Your task to perform on an android device: make emails show in primary in the gmail app Image 0: 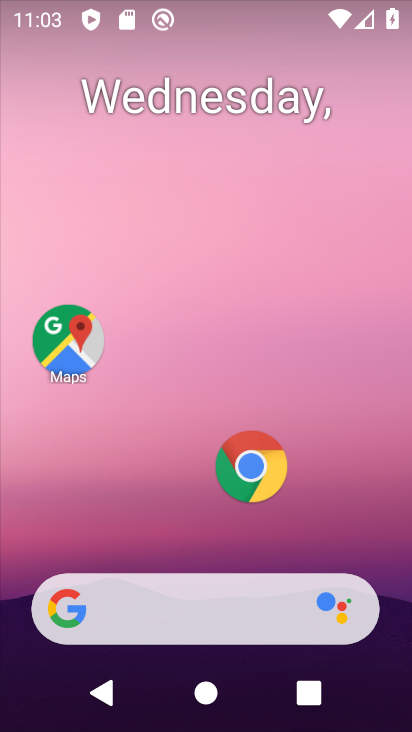
Step 0: drag from (196, 177) to (199, 364)
Your task to perform on an android device: make emails show in primary in the gmail app Image 1: 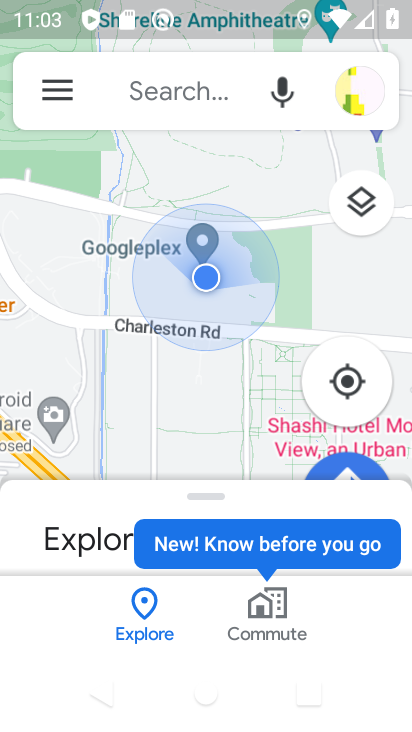
Step 1: press home button
Your task to perform on an android device: make emails show in primary in the gmail app Image 2: 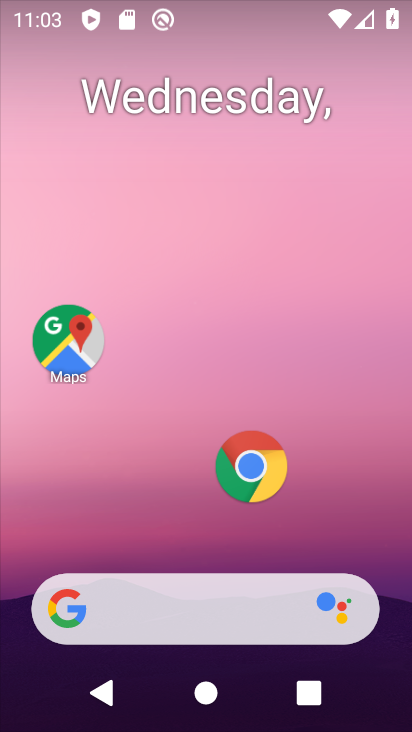
Step 2: drag from (294, 636) to (162, 107)
Your task to perform on an android device: make emails show in primary in the gmail app Image 3: 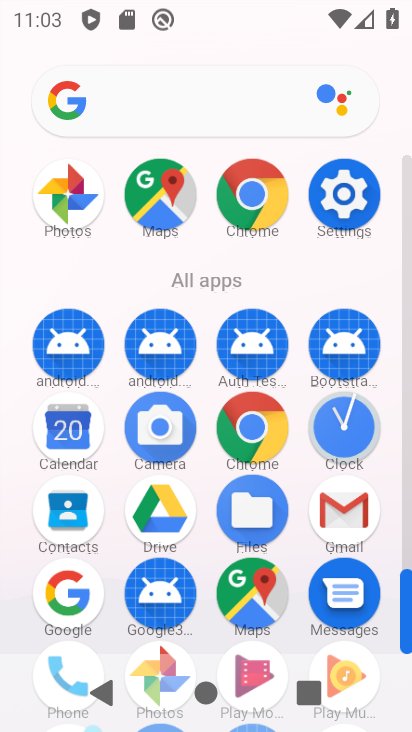
Step 3: click (339, 508)
Your task to perform on an android device: make emails show in primary in the gmail app Image 4: 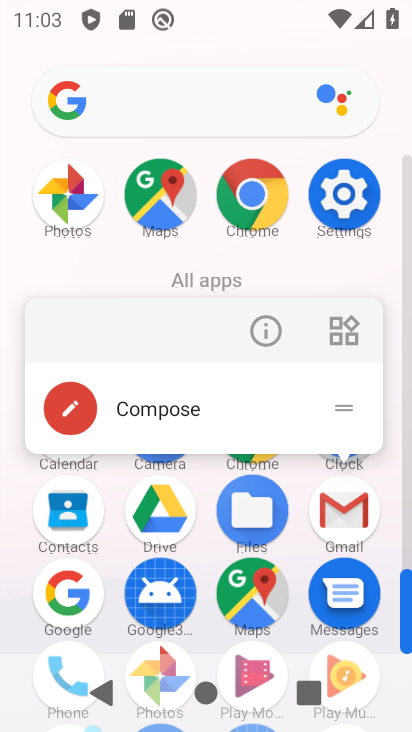
Step 4: click (341, 506)
Your task to perform on an android device: make emails show in primary in the gmail app Image 5: 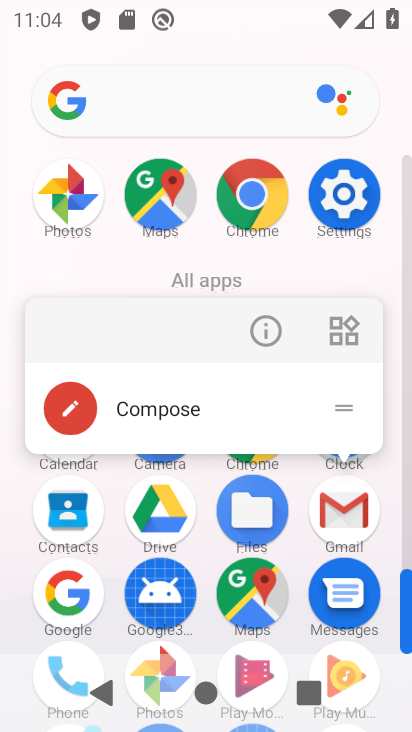
Step 5: click (344, 505)
Your task to perform on an android device: make emails show in primary in the gmail app Image 6: 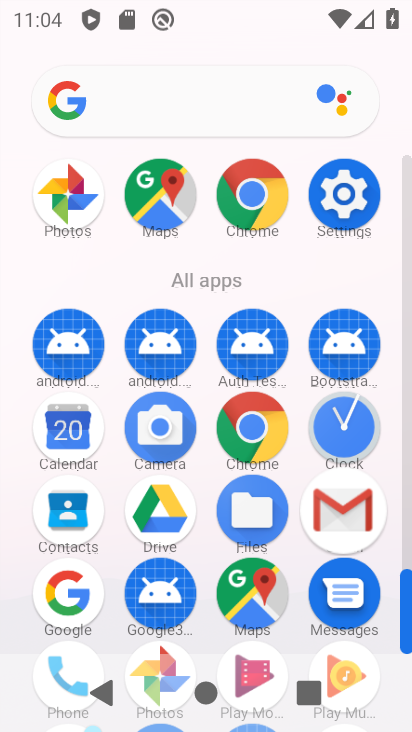
Step 6: click (344, 505)
Your task to perform on an android device: make emails show in primary in the gmail app Image 7: 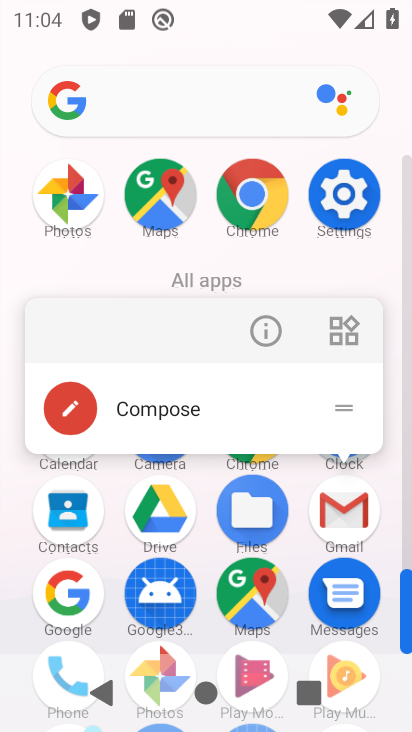
Step 7: click (344, 505)
Your task to perform on an android device: make emails show in primary in the gmail app Image 8: 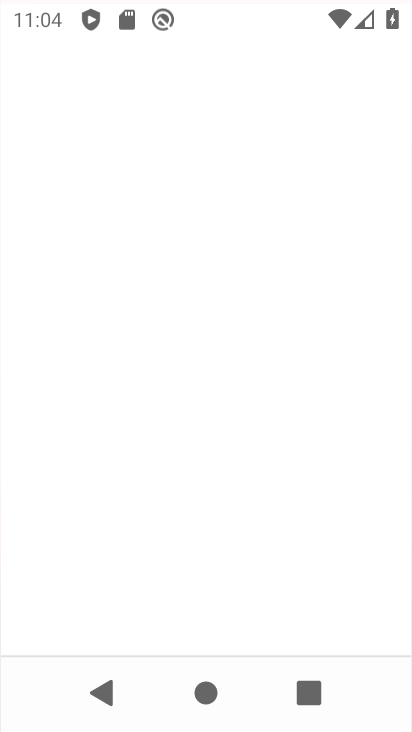
Step 8: click (349, 505)
Your task to perform on an android device: make emails show in primary in the gmail app Image 9: 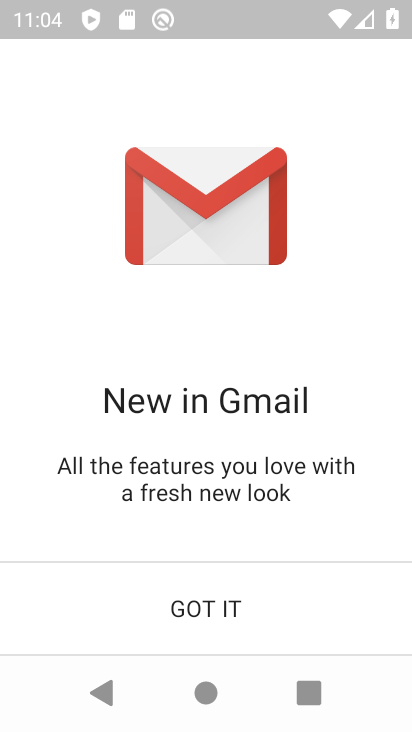
Step 9: click (204, 606)
Your task to perform on an android device: make emails show in primary in the gmail app Image 10: 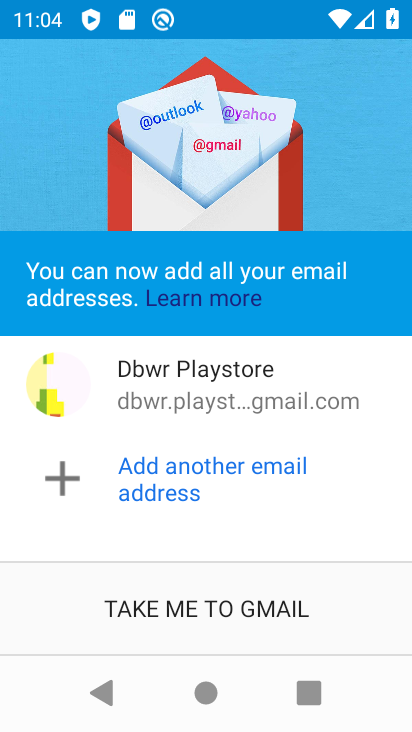
Step 10: click (192, 611)
Your task to perform on an android device: make emails show in primary in the gmail app Image 11: 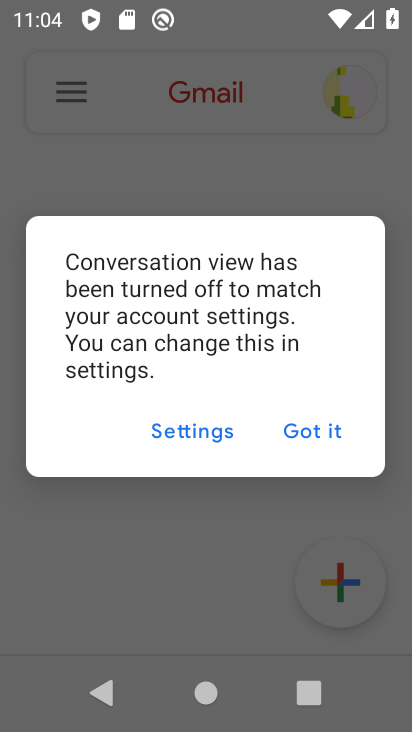
Step 11: click (314, 429)
Your task to perform on an android device: make emails show in primary in the gmail app Image 12: 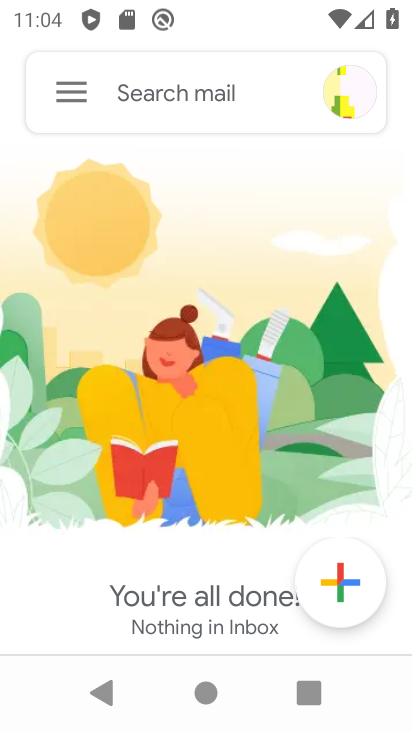
Step 12: click (58, 87)
Your task to perform on an android device: make emails show in primary in the gmail app Image 13: 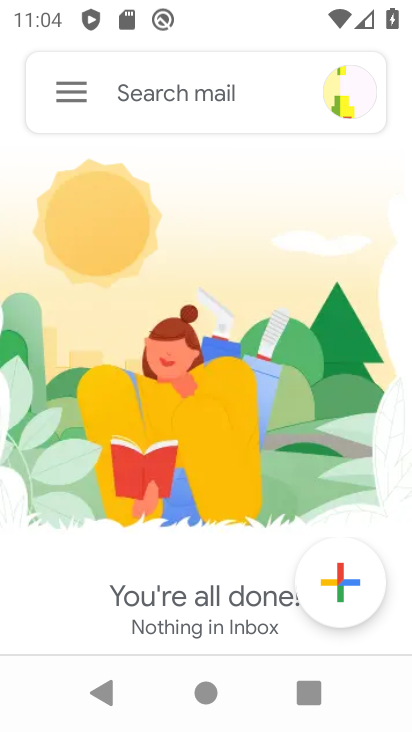
Step 13: drag from (78, 96) to (110, 259)
Your task to perform on an android device: make emails show in primary in the gmail app Image 14: 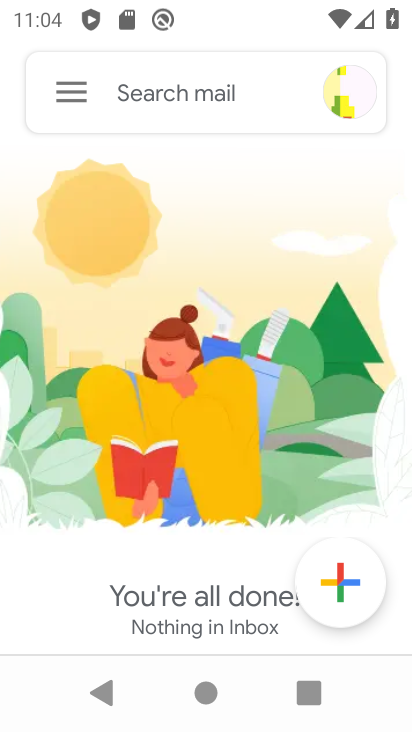
Step 14: drag from (62, 101) to (114, 255)
Your task to perform on an android device: make emails show in primary in the gmail app Image 15: 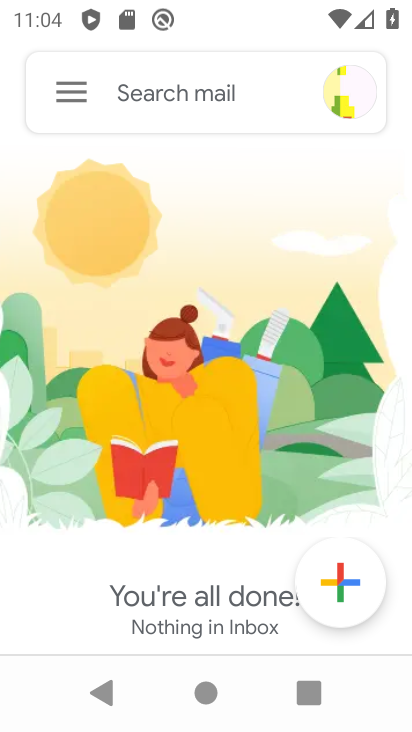
Step 15: drag from (72, 91) to (66, 255)
Your task to perform on an android device: make emails show in primary in the gmail app Image 16: 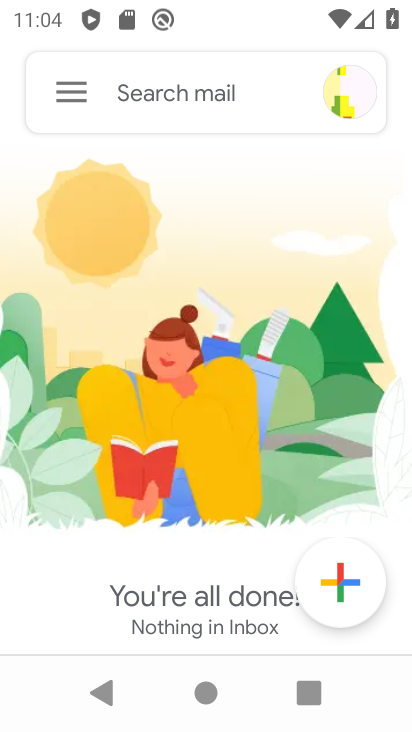
Step 16: click (60, 97)
Your task to perform on an android device: make emails show in primary in the gmail app Image 17: 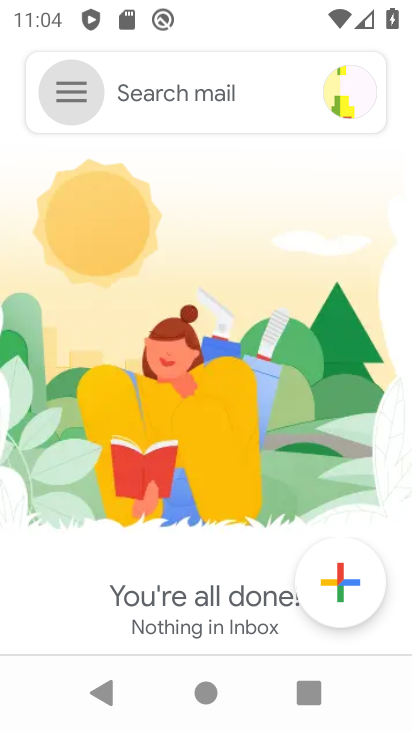
Step 17: click (62, 96)
Your task to perform on an android device: make emails show in primary in the gmail app Image 18: 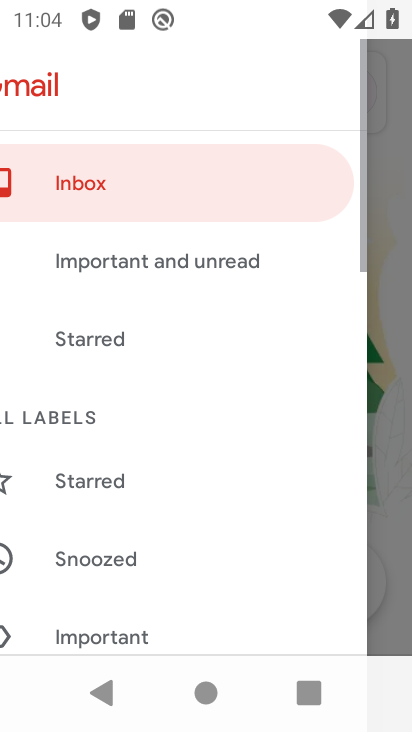
Step 18: click (67, 91)
Your task to perform on an android device: make emails show in primary in the gmail app Image 19: 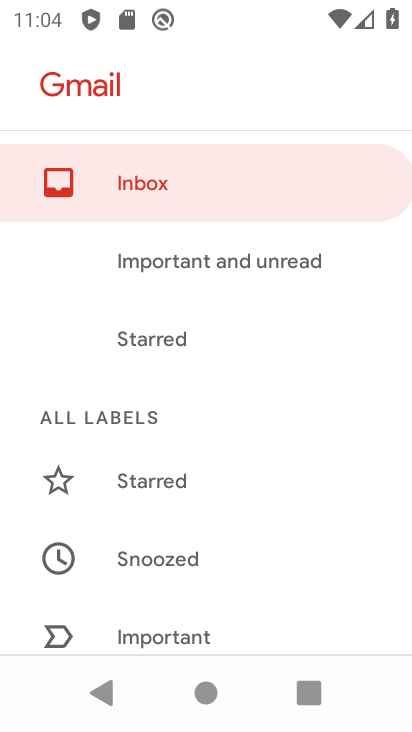
Step 19: click (175, 423)
Your task to perform on an android device: make emails show in primary in the gmail app Image 20: 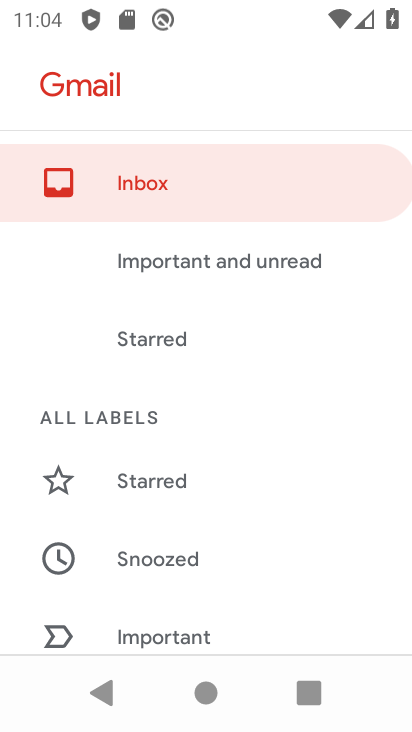
Step 20: drag from (258, 562) to (199, 224)
Your task to perform on an android device: make emails show in primary in the gmail app Image 21: 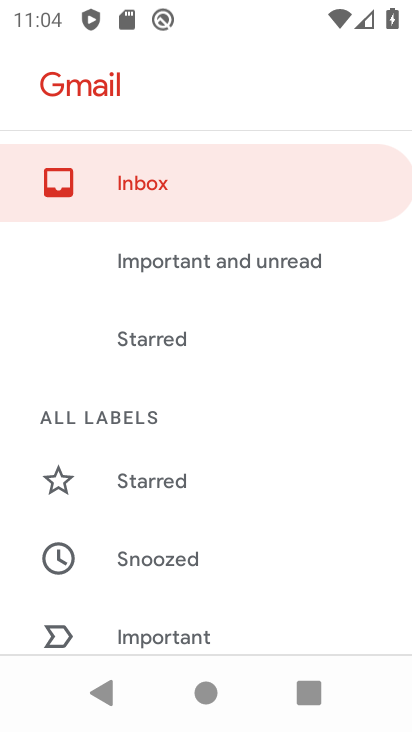
Step 21: drag from (202, 485) to (166, 198)
Your task to perform on an android device: make emails show in primary in the gmail app Image 22: 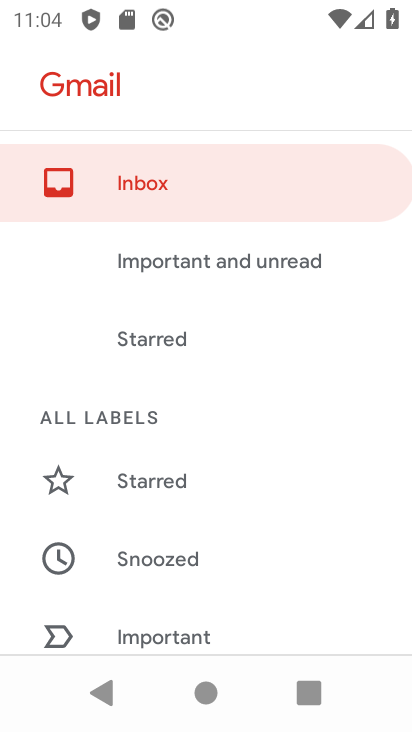
Step 22: drag from (192, 351) to (199, 142)
Your task to perform on an android device: make emails show in primary in the gmail app Image 23: 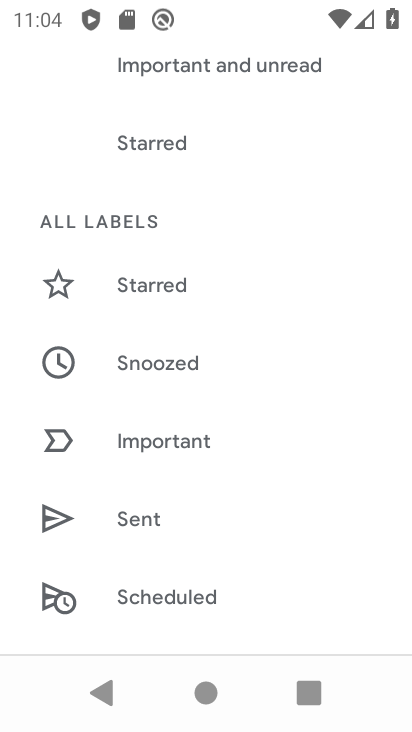
Step 23: drag from (237, 390) to (234, 328)
Your task to perform on an android device: make emails show in primary in the gmail app Image 24: 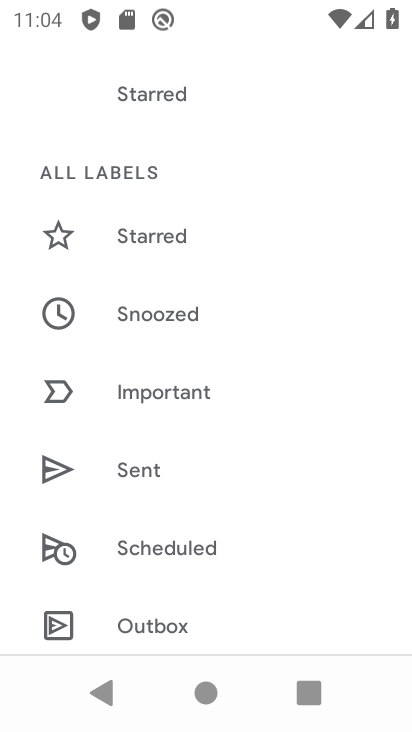
Step 24: drag from (263, 483) to (257, 0)
Your task to perform on an android device: make emails show in primary in the gmail app Image 25: 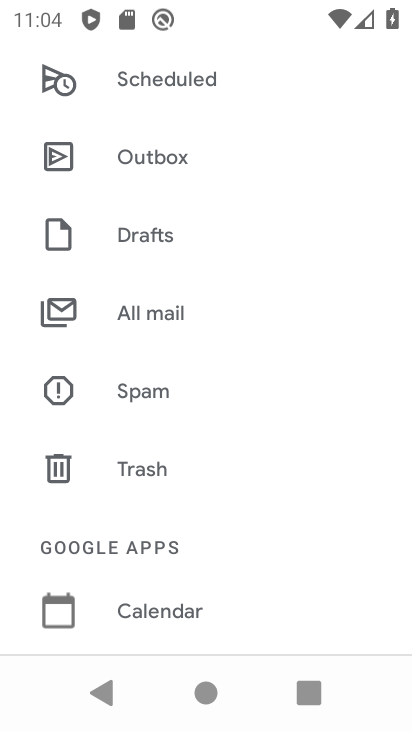
Step 25: drag from (250, 294) to (250, 187)
Your task to perform on an android device: make emails show in primary in the gmail app Image 26: 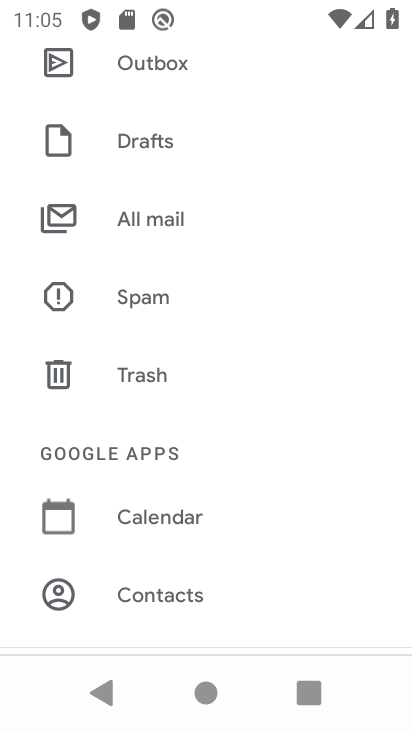
Step 26: click (148, 215)
Your task to perform on an android device: make emails show in primary in the gmail app Image 27: 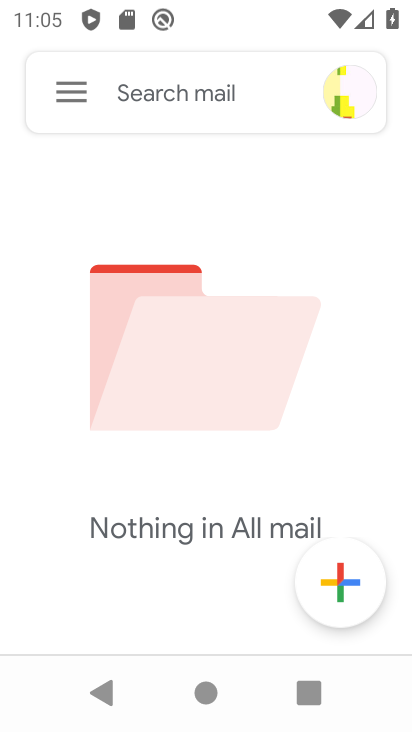
Step 27: task complete